Your task to perform on an android device: Go to Yahoo.com Image 0: 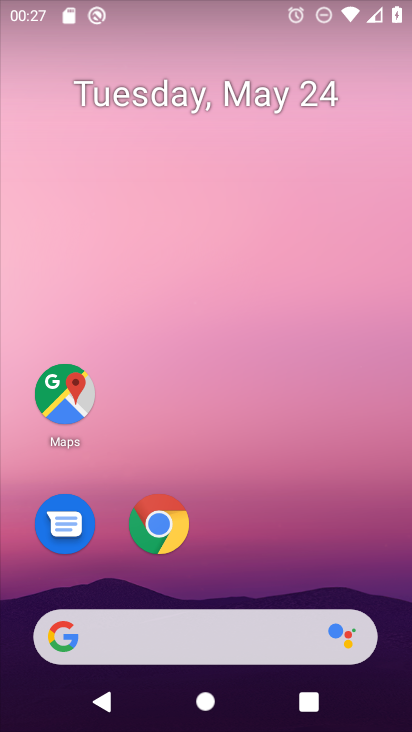
Step 0: click (148, 538)
Your task to perform on an android device: Go to Yahoo.com Image 1: 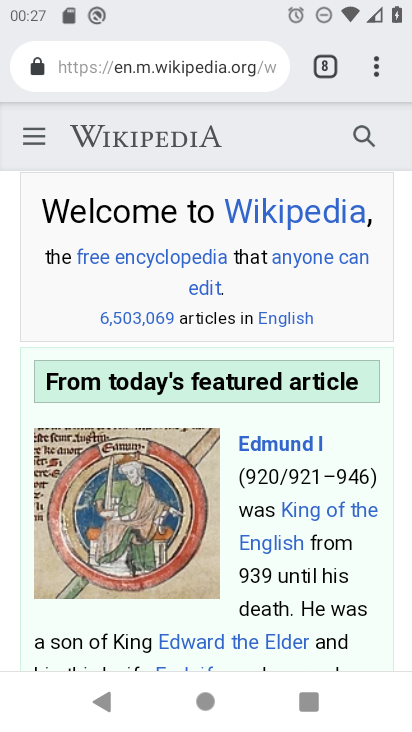
Step 1: click (315, 61)
Your task to perform on an android device: Go to Yahoo.com Image 2: 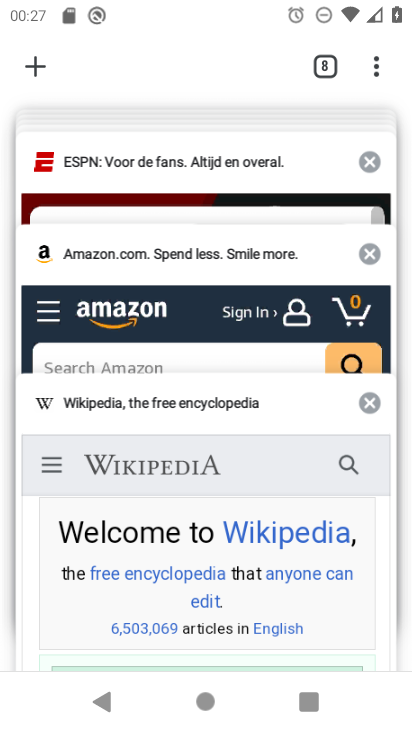
Step 2: drag from (155, 175) to (183, 426)
Your task to perform on an android device: Go to Yahoo.com Image 3: 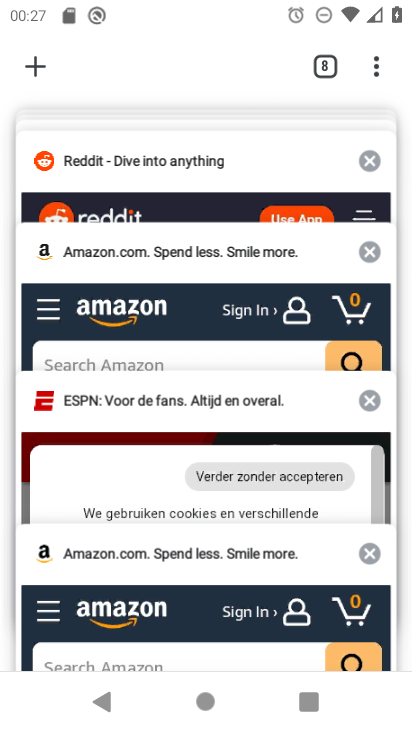
Step 3: drag from (190, 218) to (228, 532)
Your task to perform on an android device: Go to Yahoo.com Image 4: 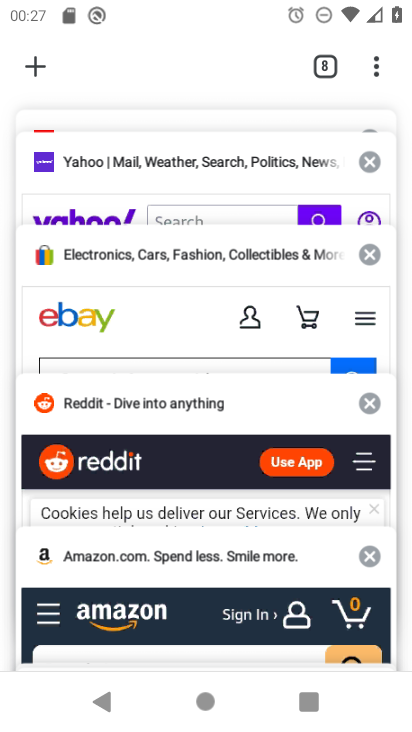
Step 4: drag from (213, 229) to (222, 498)
Your task to perform on an android device: Go to Yahoo.com Image 5: 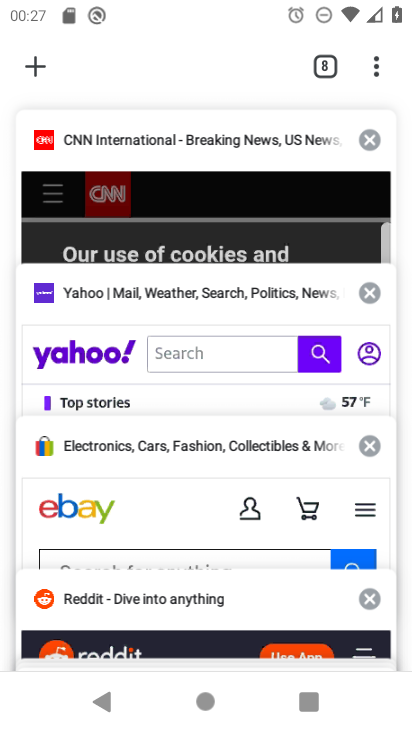
Step 5: drag from (207, 223) to (230, 382)
Your task to perform on an android device: Go to Yahoo.com Image 6: 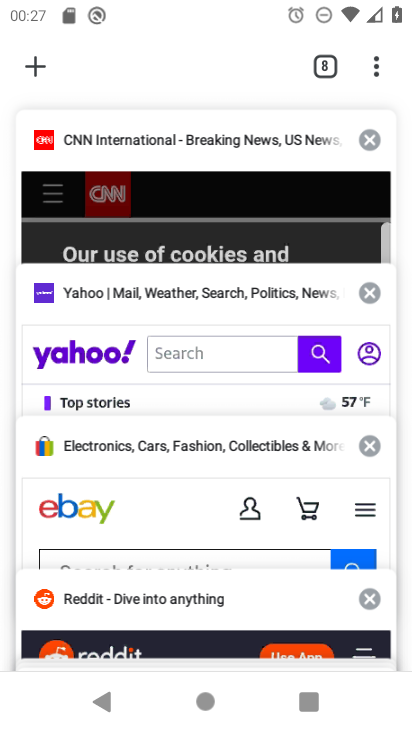
Step 6: click (195, 354)
Your task to perform on an android device: Go to Yahoo.com Image 7: 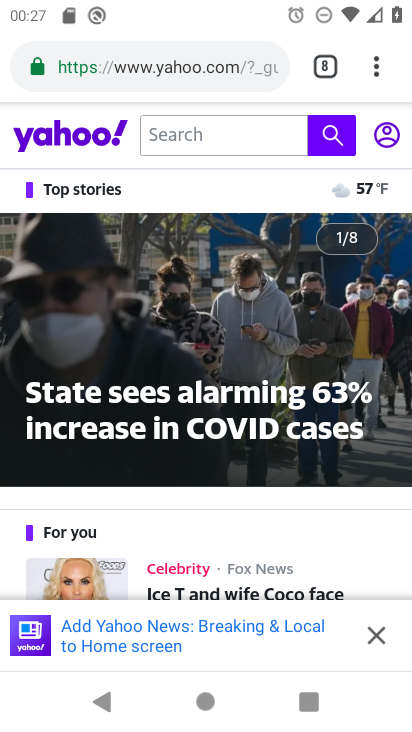
Step 7: task complete